Your task to perform on an android device: Toggle the flashlight Image 0: 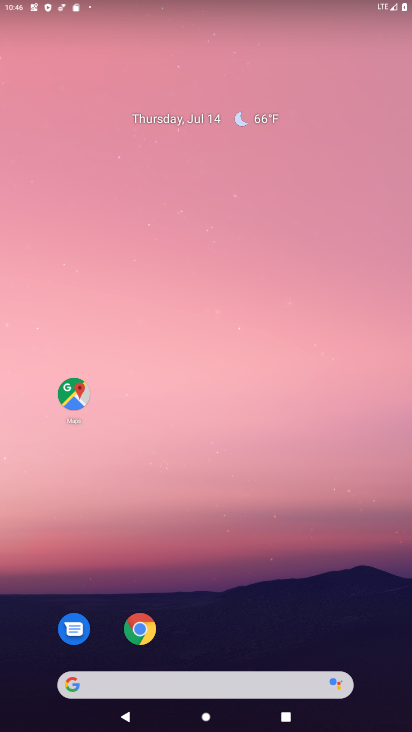
Step 0: press home button
Your task to perform on an android device: Toggle the flashlight Image 1: 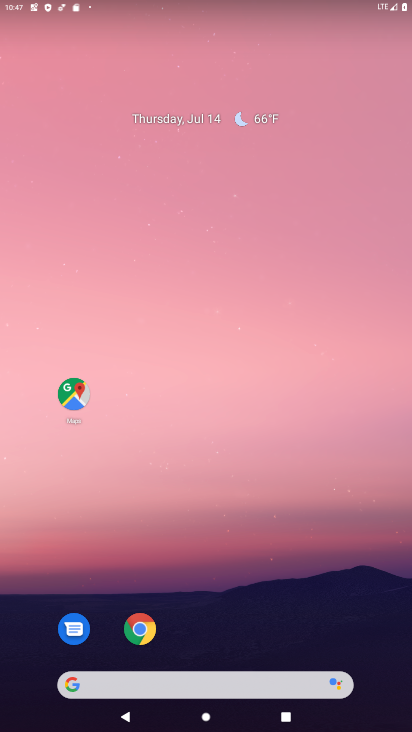
Step 1: task complete